Your task to perform on an android device: What's the weather today? Image 0: 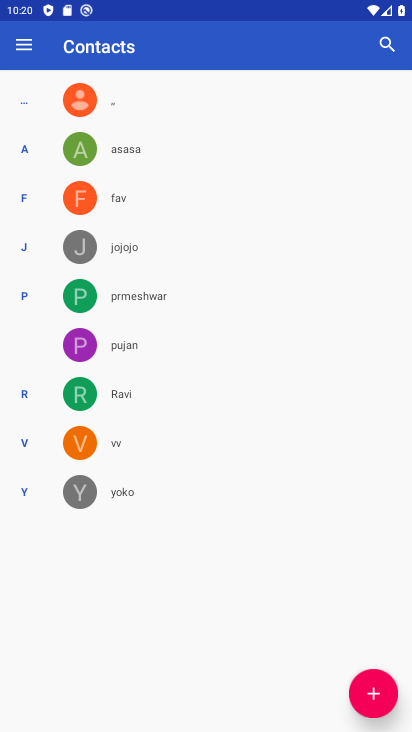
Step 0: press home button
Your task to perform on an android device: What's the weather today? Image 1: 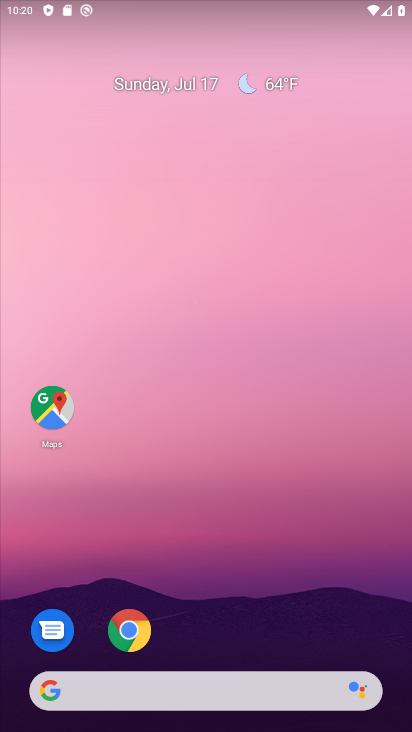
Step 1: click (278, 82)
Your task to perform on an android device: What's the weather today? Image 2: 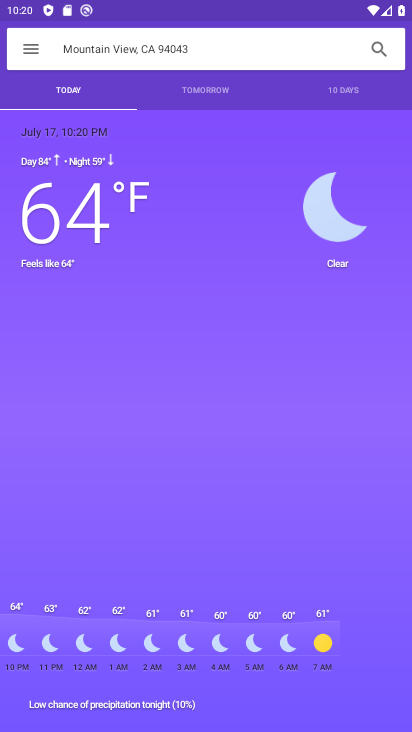
Step 2: task complete